Your task to perform on an android device: Open the files app Image 0: 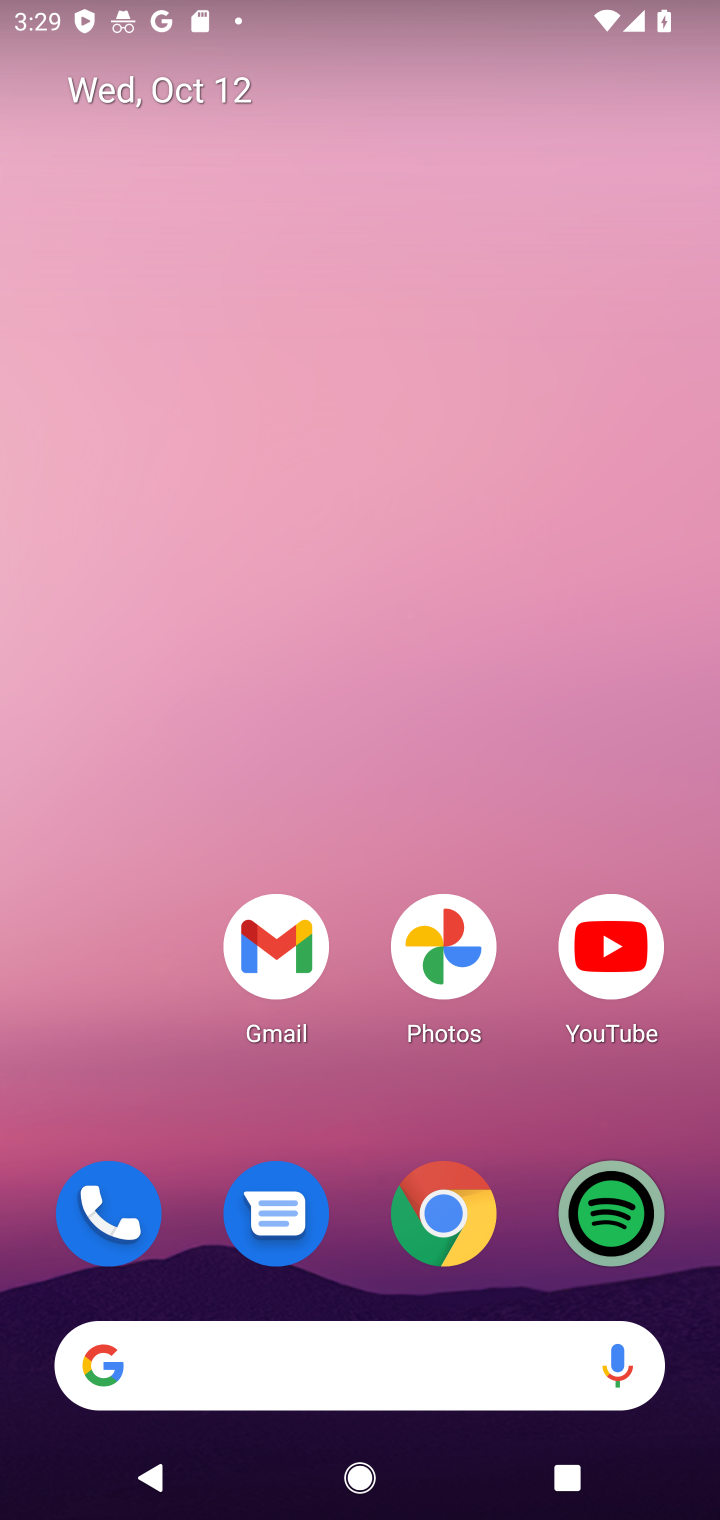
Step 0: drag from (169, 723) to (355, 69)
Your task to perform on an android device: Open the files app Image 1: 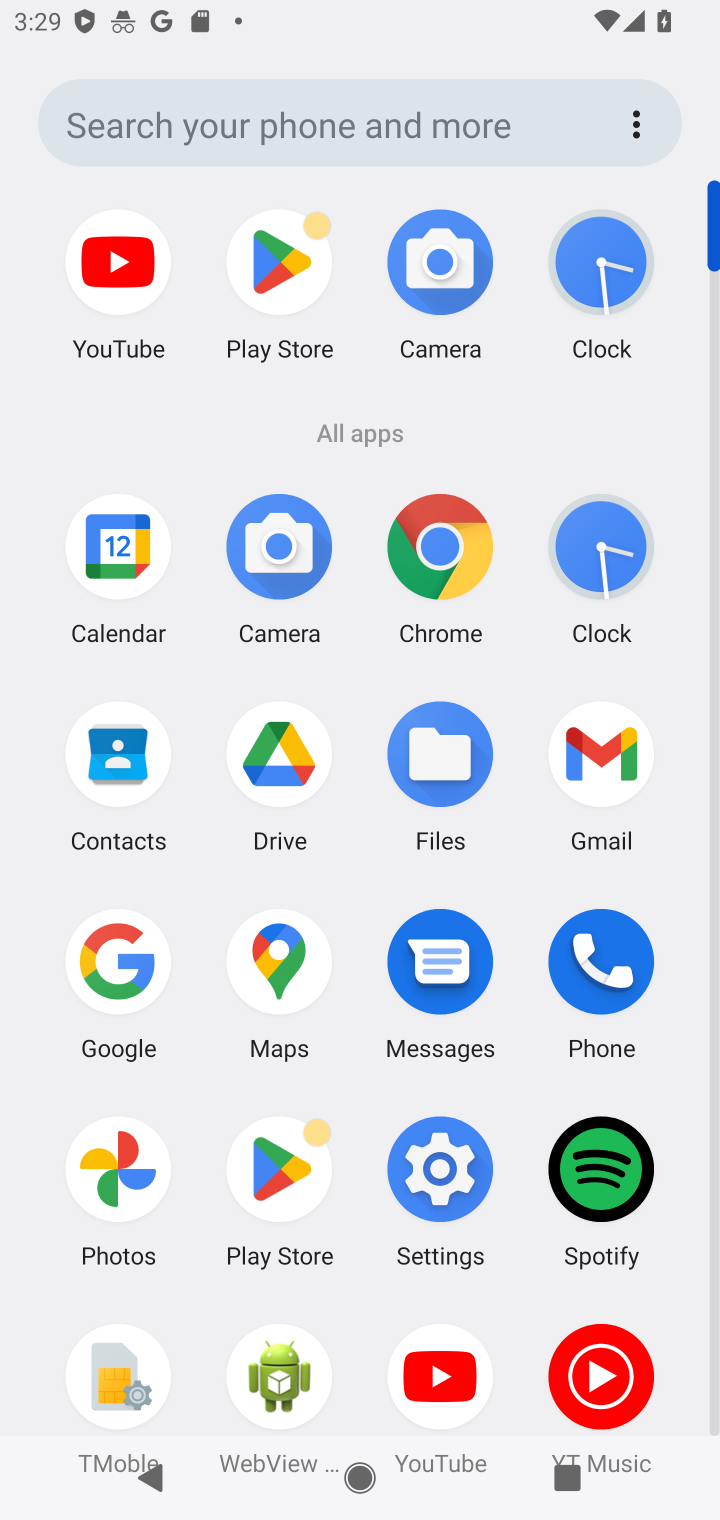
Step 1: click (427, 798)
Your task to perform on an android device: Open the files app Image 2: 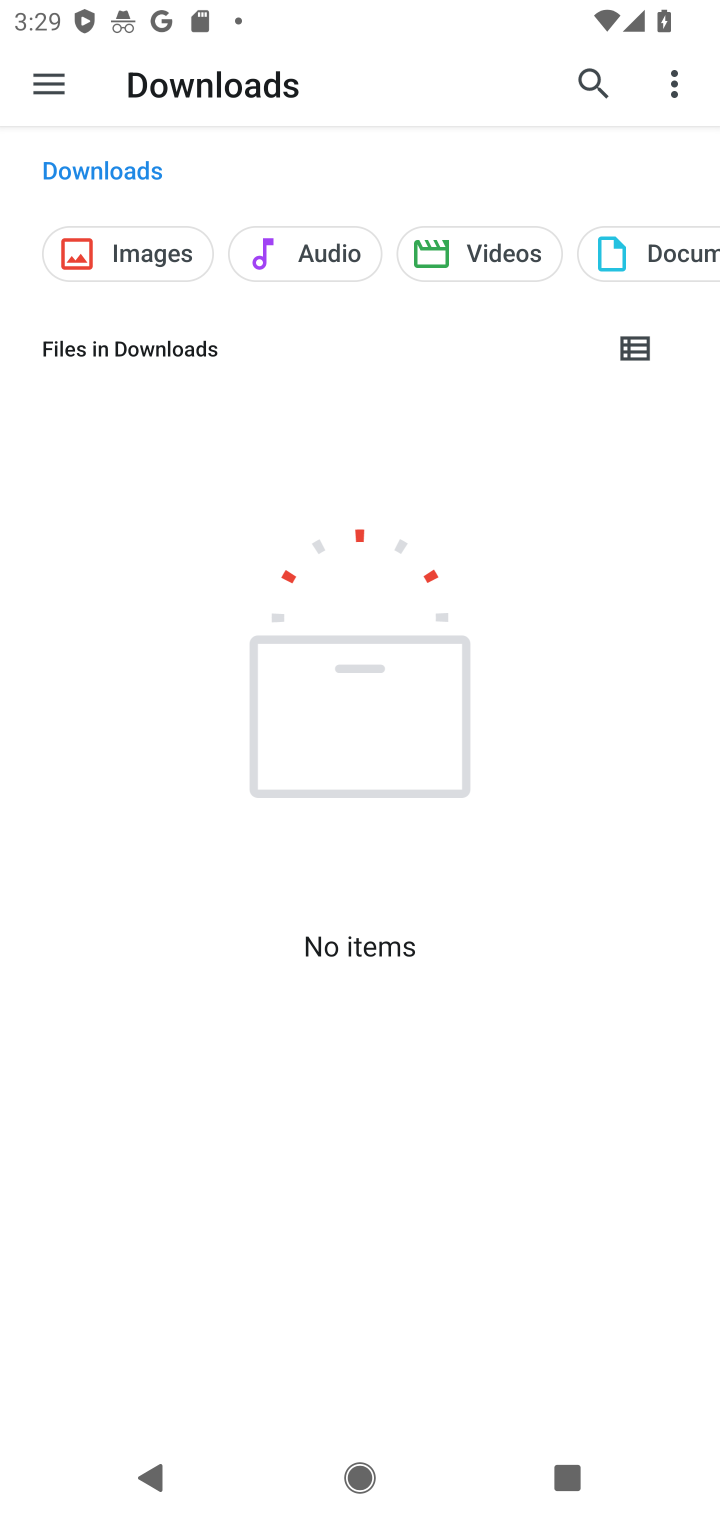
Step 2: task complete